Your task to perform on an android device: turn on improve location accuracy Image 0: 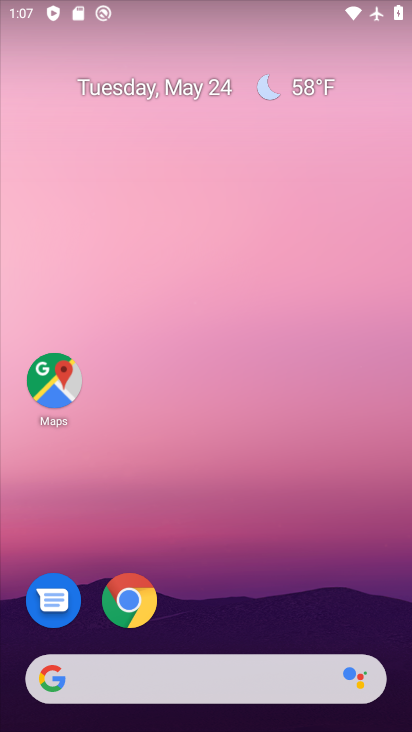
Step 0: drag from (301, 559) to (208, 29)
Your task to perform on an android device: turn on improve location accuracy Image 1: 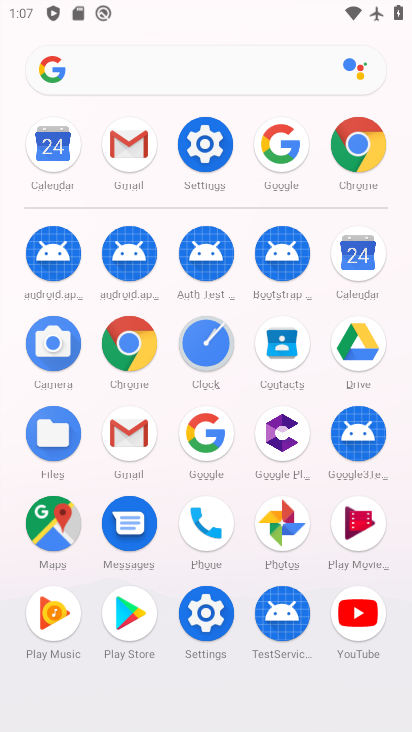
Step 1: click (214, 148)
Your task to perform on an android device: turn on improve location accuracy Image 2: 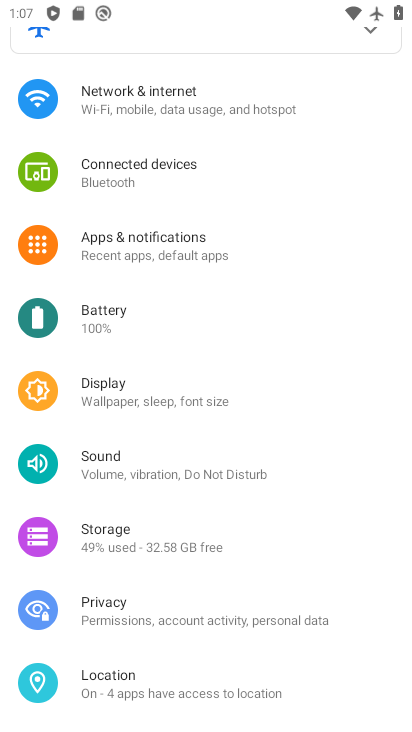
Step 2: click (211, 689)
Your task to perform on an android device: turn on improve location accuracy Image 3: 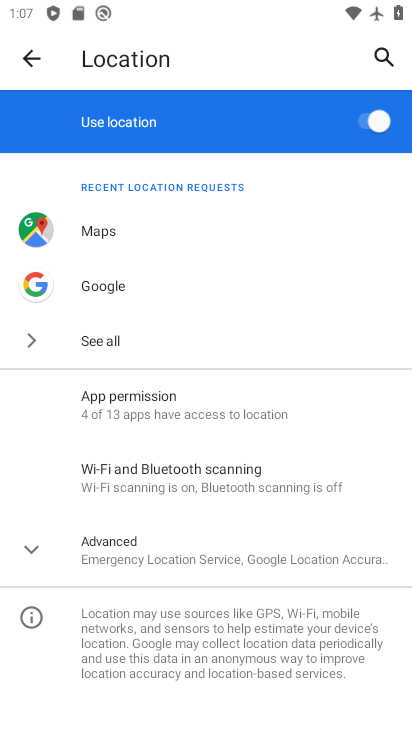
Step 3: click (178, 541)
Your task to perform on an android device: turn on improve location accuracy Image 4: 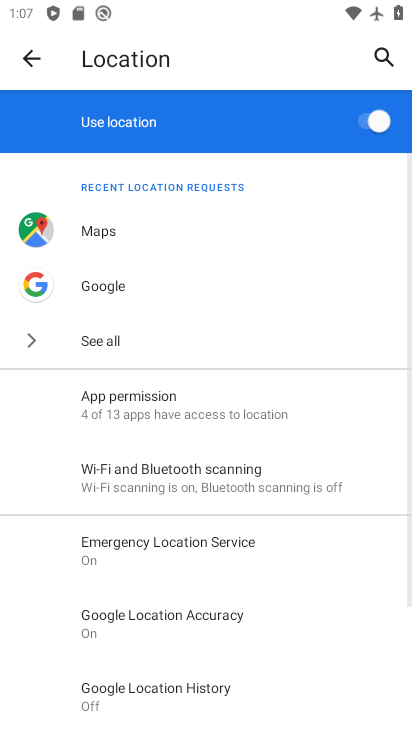
Step 4: click (239, 618)
Your task to perform on an android device: turn on improve location accuracy Image 5: 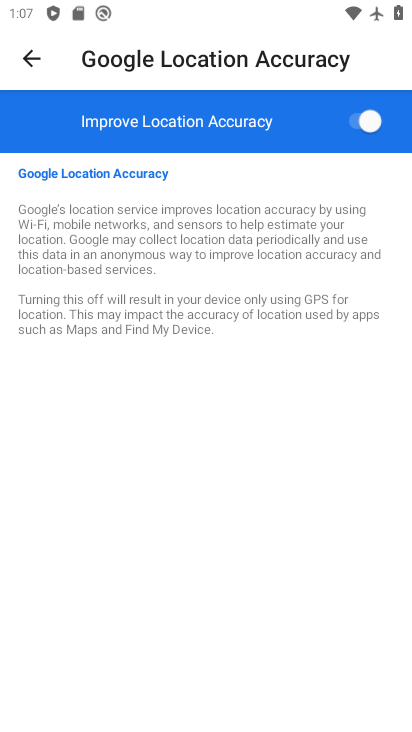
Step 5: task complete